Your task to perform on an android device: Open Chrome and go to the settings page Image 0: 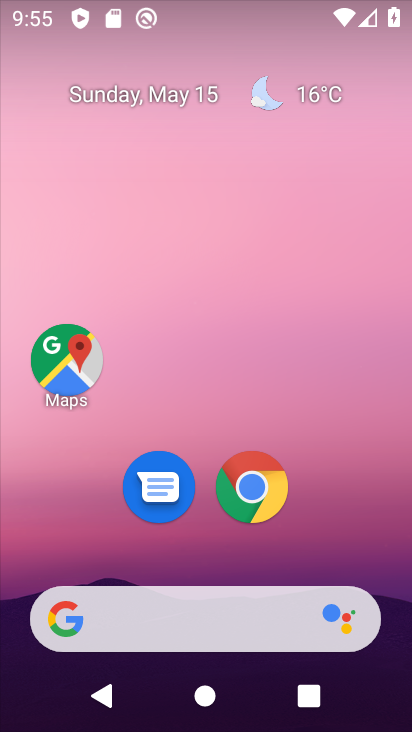
Step 0: click (256, 490)
Your task to perform on an android device: Open Chrome and go to the settings page Image 1: 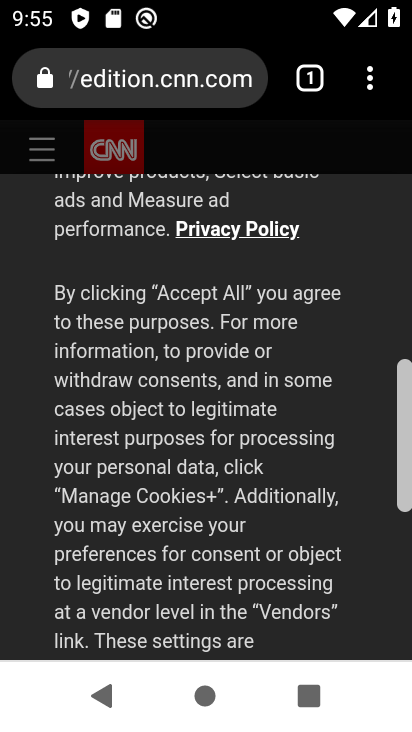
Step 1: click (373, 84)
Your task to perform on an android device: Open Chrome and go to the settings page Image 2: 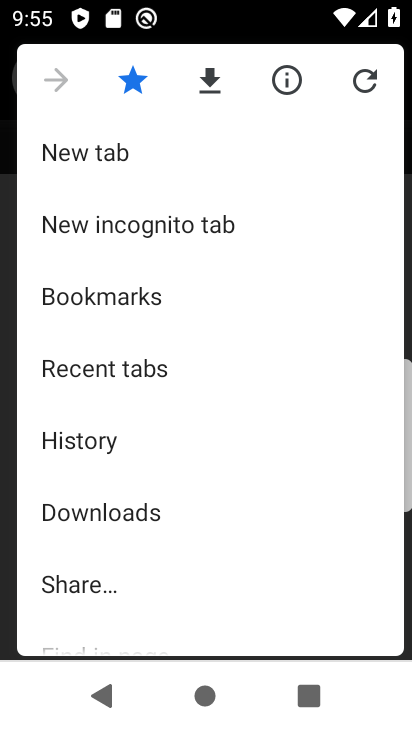
Step 2: drag from (208, 584) to (249, 207)
Your task to perform on an android device: Open Chrome and go to the settings page Image 3: 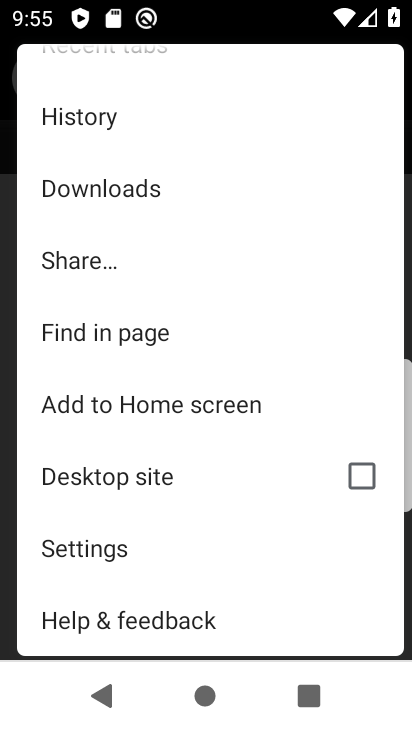
Step 3: click (94, 549)
Your task to perform on an android device: Open Chrome and go to the settings page Image 4: 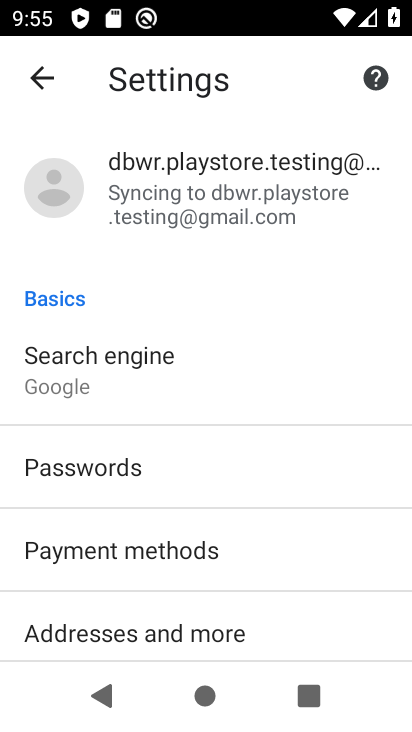
Step 4: task complete